Your task to perform on an android device: Open Youtube and go to "Your channel" Image 0: 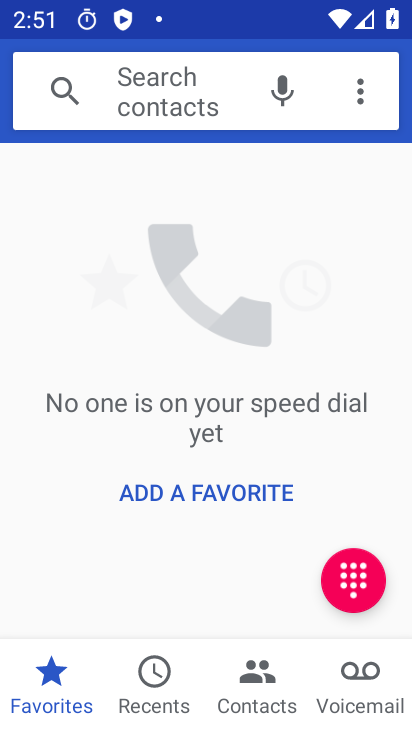
Step 0: press home button
Your task to perform on an android device: Open Youtube and go to "Your channel" Image 1: 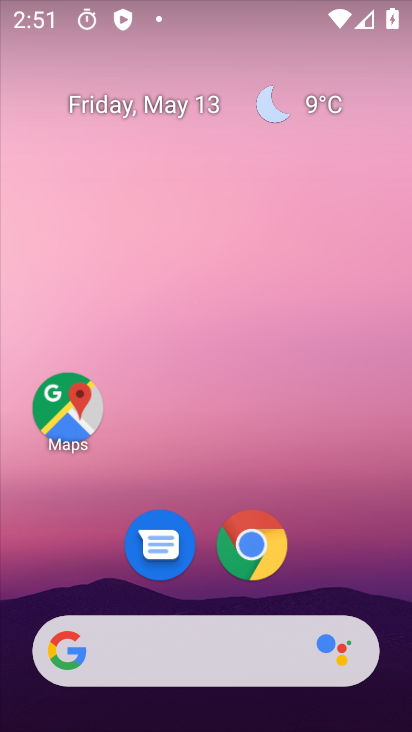
Step 1: click (57, 421)
Your task to perform on an android device: Open Youtube and go to "Your channel" Image 2: 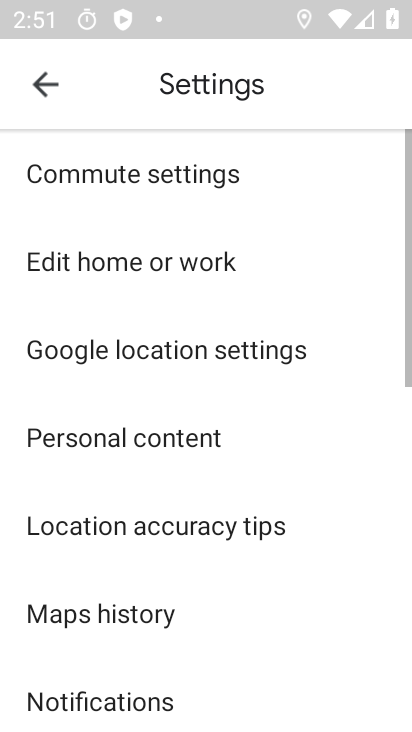
Step 2: click (45, 84)
Your task to perform on an android device: Open Youtube and go to "Your channel" Image 3: 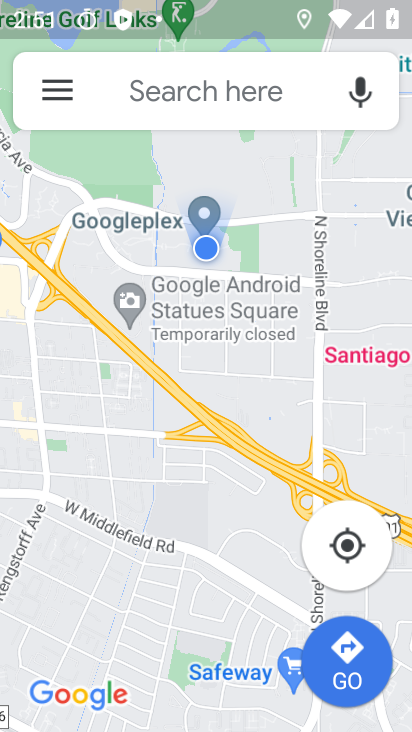
Step 3: click (51, 85)
Your task to perform on an android device: Open Youtube and go to "Your channel" Image 4: 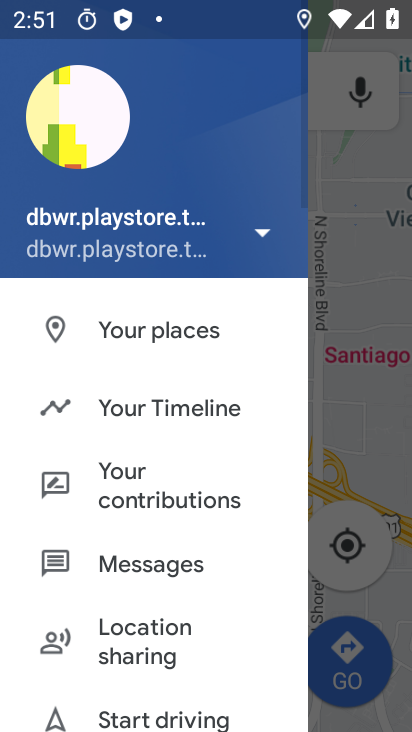
Step 4: click (195, 406)
Your task to perform on an android device: Open Youtube and go to "Your channel" Image 5: 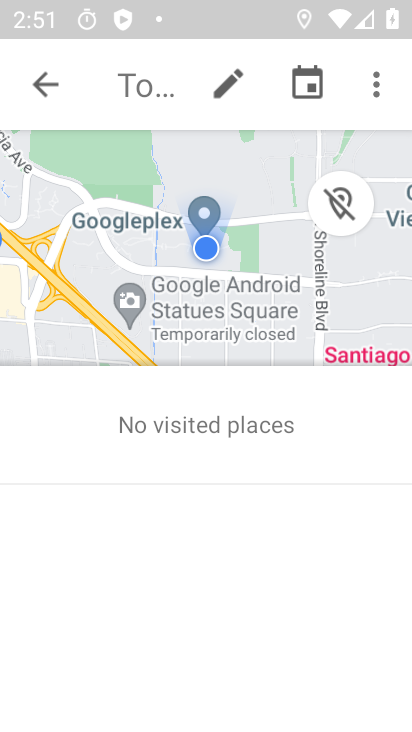
Step 5: press home button
Your task to perform on an android device: Open Youtube and go to "Your channel" Image 6: 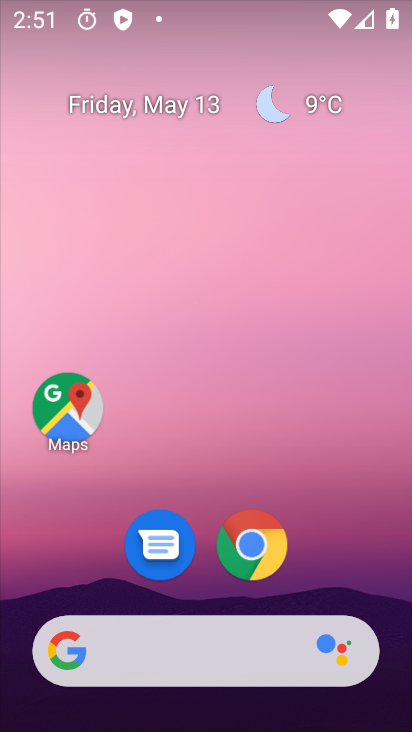
Step 6: drag from (339, 568) to (318, 117)
Your task to perform on an android device: Open Youtube and go to "Your channel" Image 7: 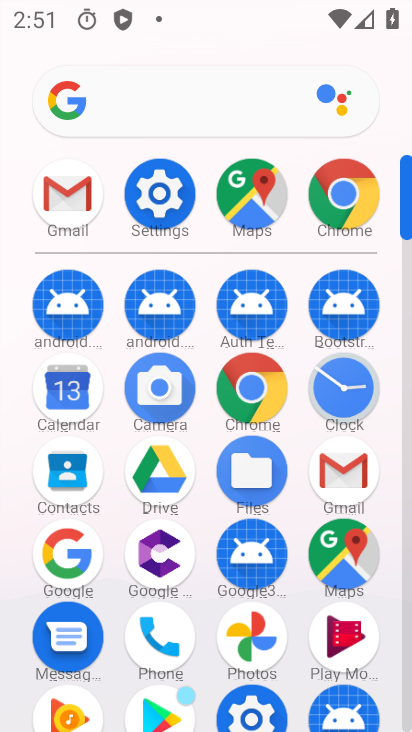
Step 7: drag from (302, 432) to (286, 76)
Your task to perform on an android device: Open Youtube and go to "Your channel" Image 8: 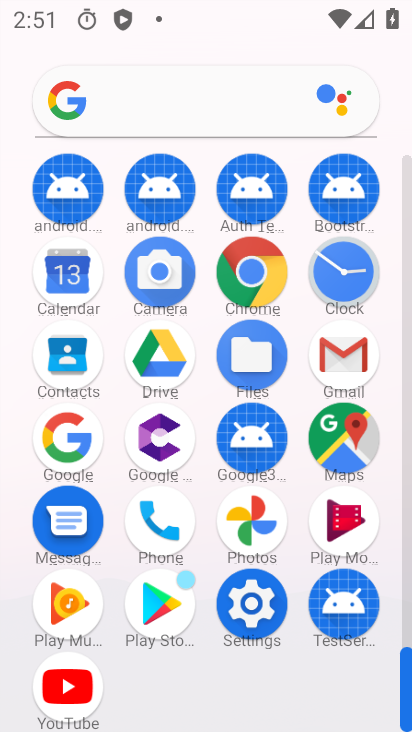
Step 8: click (71, 671)
Your task to perform on an android device: Open Youtube and go to "Your channel" Image 9: 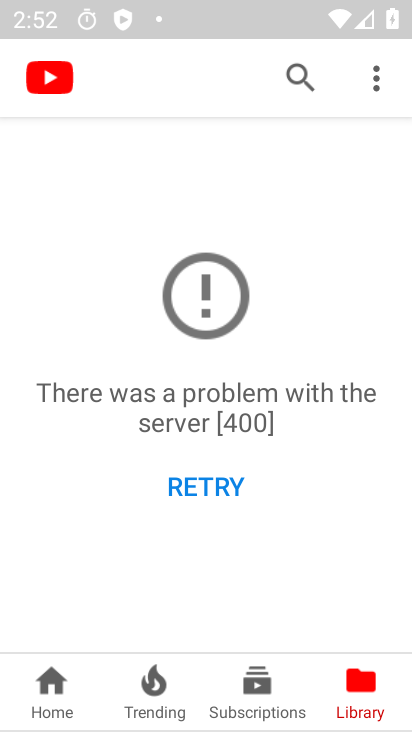
Step 9: task complete